Your task to perform on an android device: Open the calendar and show me this week's events Image 0: 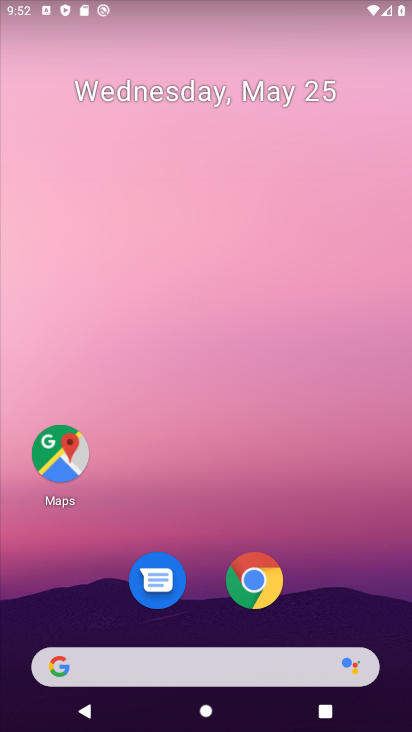
Step 0: drag from (57, 488) to (214, 100)
Your task to perform on an android device: Open the calendar and show me this week's events Image 1: 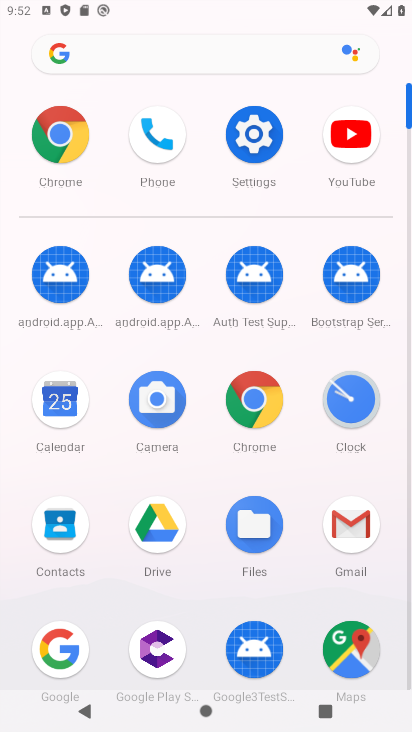
Step 1: click (64, 397)
Your task to perform on an android device: Open the calendar and show me this week's events Image 2: 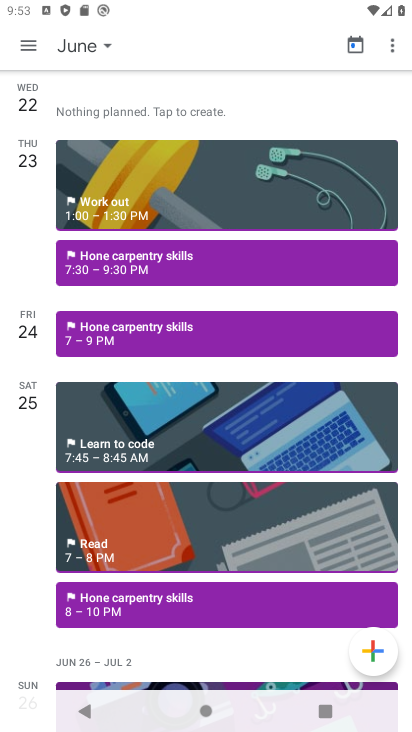
Step 2: click (106, 47)
Your task to perform on an android device: Open the calendar and show me this week's events Image 3: 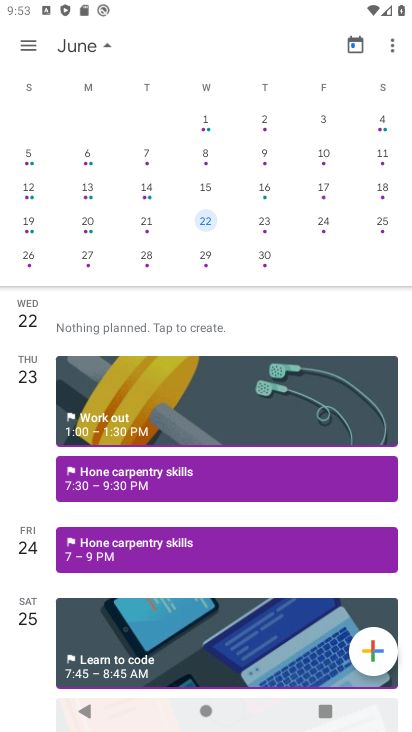
Step 3: click (264, 227)
Your task to perform on an android device: Open the calendar and show me this week's events Image 4: 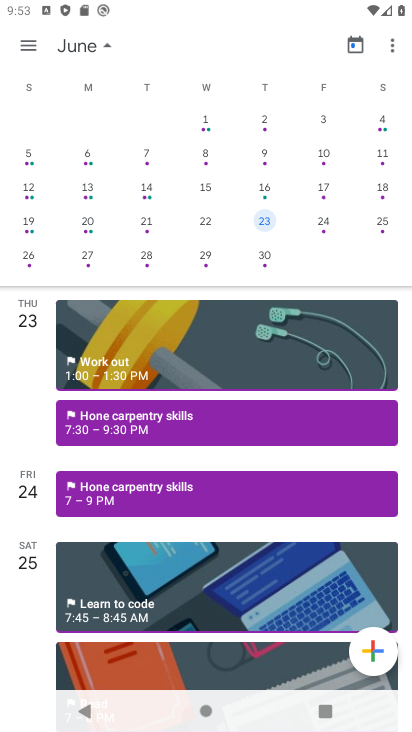
Step 4: click (335, 224)
Your task to perform on an android device: Open the calendar and show me this week's events Image 5: 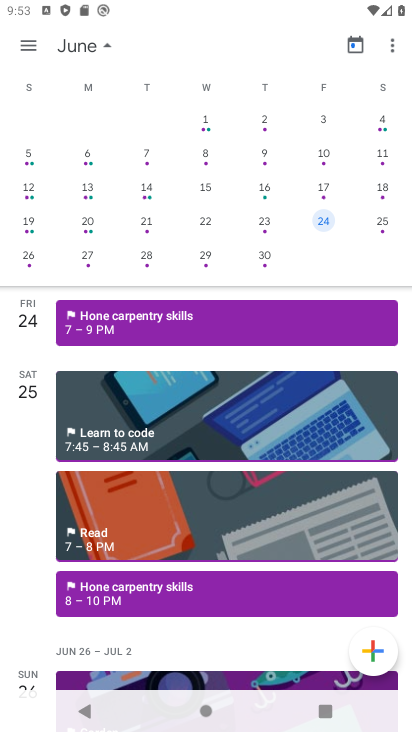
Step 5: click (387, 224)
Your task to perform on an android device: Open the calendar and show me this week's events Image 6: 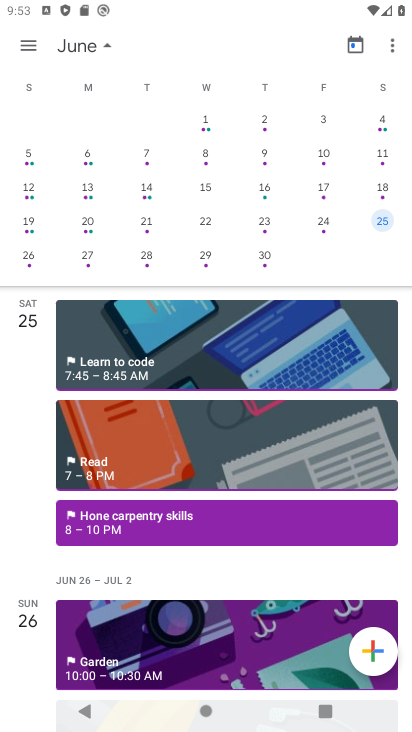
Step 6: drag from (14, 189) to (378, 204)
Your task to perform on an android device: Open the calendar and show me this week's events Image 7: 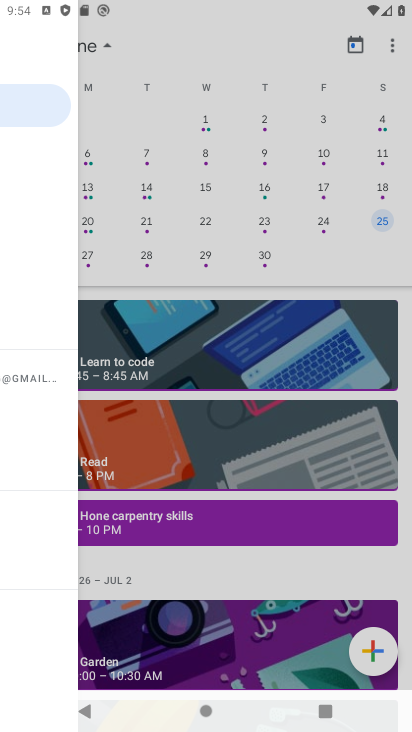
Step 7: press back button
Your task to perform on an android device: Open the calendar and show me this week's events Image 8: 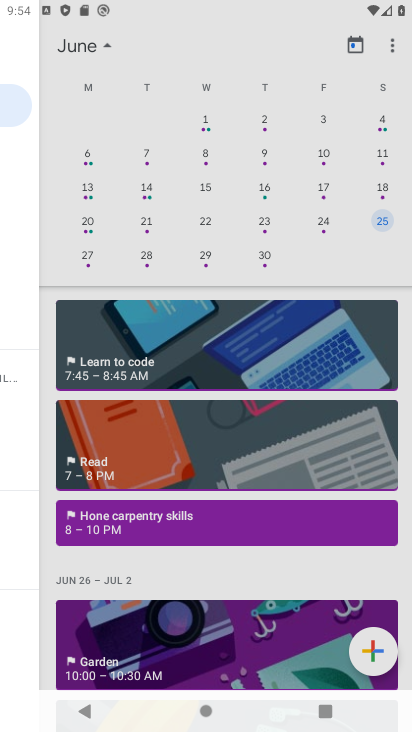
Step 8: drag from (378, 204) to (392, 91)
Your task to perform on an android device: Open the calendar and show me this week's events Image 9: 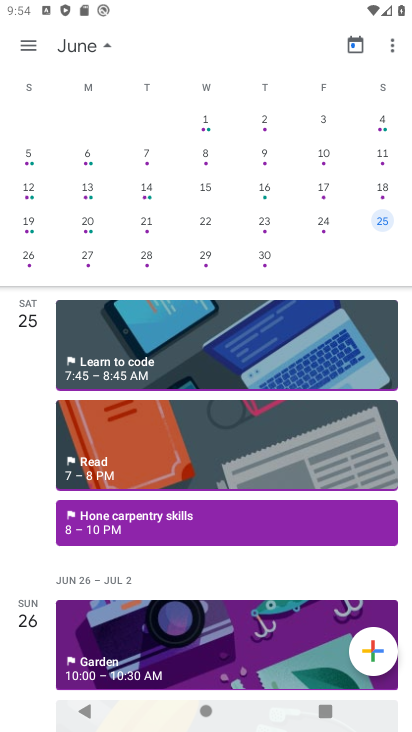
Step 9: drag from (1, 163) to (407, 195)
Your task to perform on an android device: Open the calendar and show me this week's events Image 10: 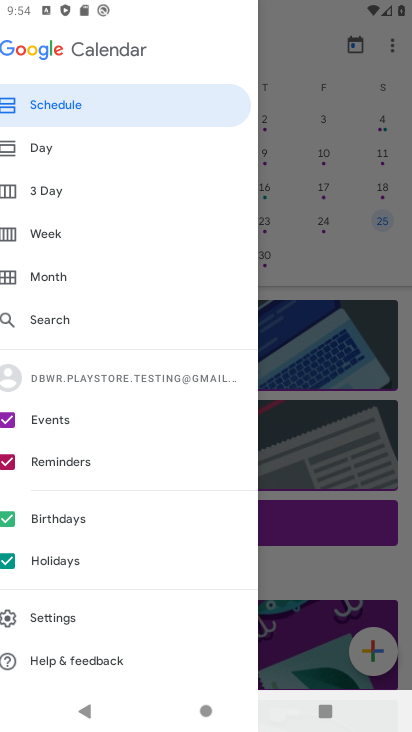
Step 10: press back button
Your task to perform on an android device: Open the calendar and show me this week's events Image 11: 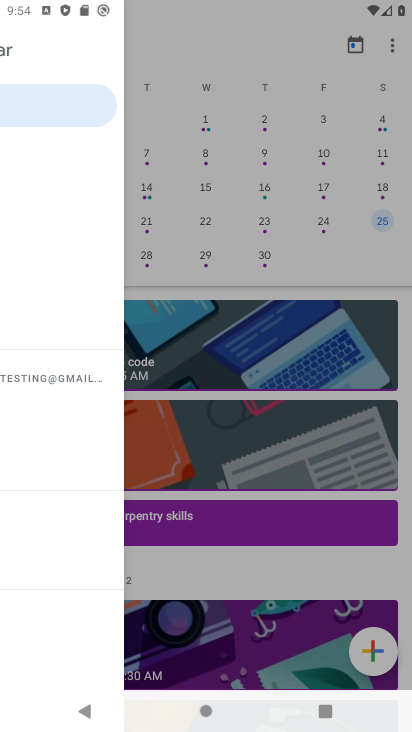
Step 11: click (407, 195)
Your task to perform on an android device: Open the calendar and show me this week's events Image 12: 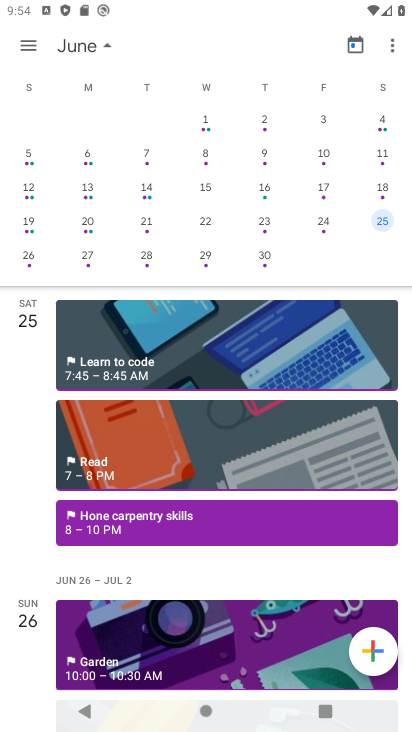
Step 12: drag from (76, 165) to (396, 63)
Your task to perform on an android device: Open the calendar and show me this week's events Image 13: 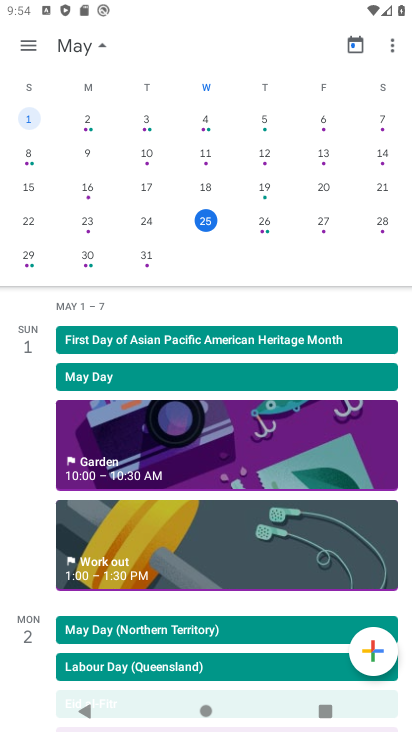
Step 13: click (259, 226)
Your task to perform on an android device: Open the calendar and show me this week's events Image 14: 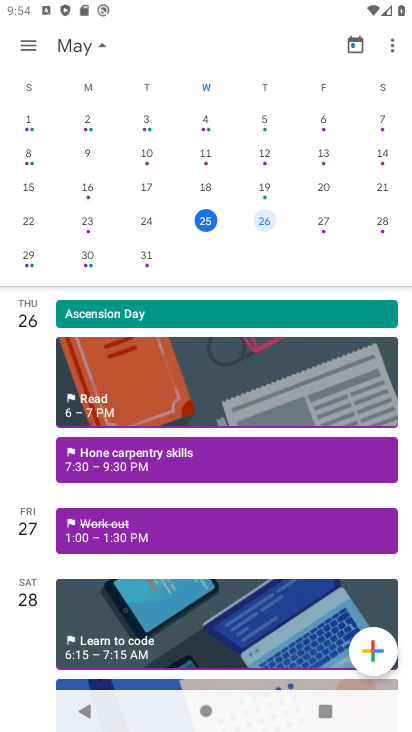
Step 14: click (328, 224)
Your task to perform on an android device: Open the calendar and show me this week's events Image 15: 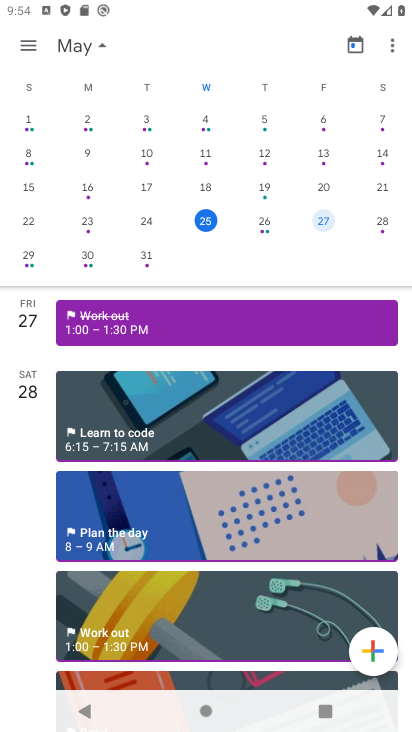
Step 15: click (382, 222)
Your task to perform on an android device: Open the calendar and show me this week's events Image 16: 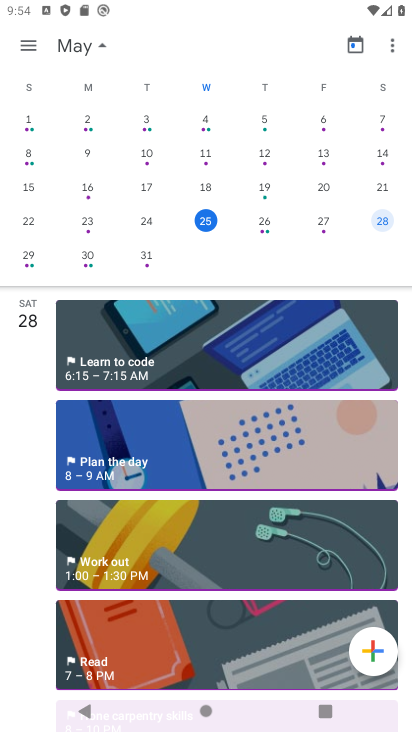
Step 16: task complete